Your task to perform on an android device: Go to eBay Image 0: 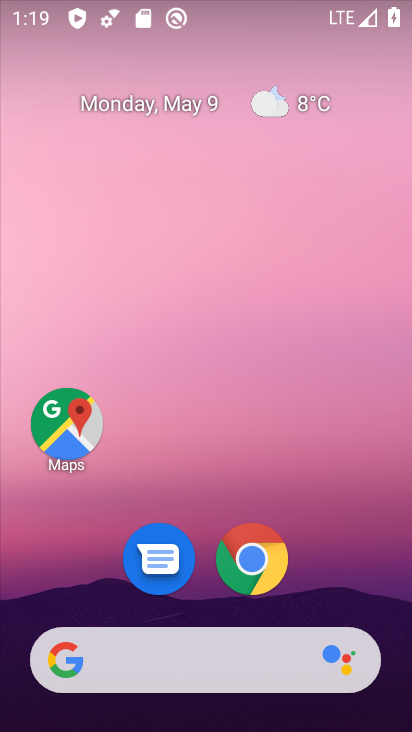
Step 0: click (236, 561)
Your task to perform on an android device: Go to eBay Image 1: 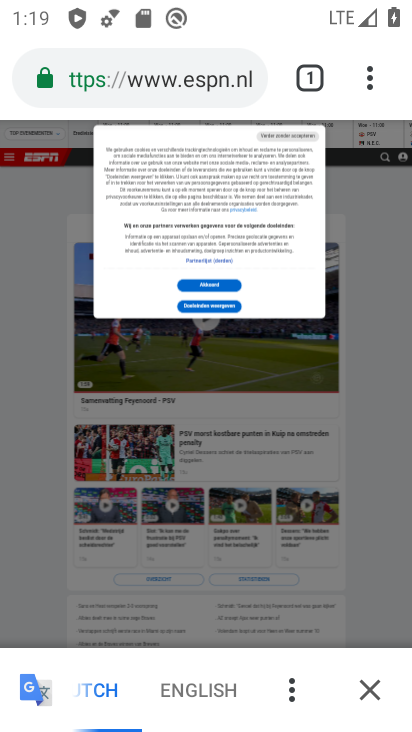
Step 1: click (371, 77)
Your task to perform on an android device: Go to eBay Image 2: 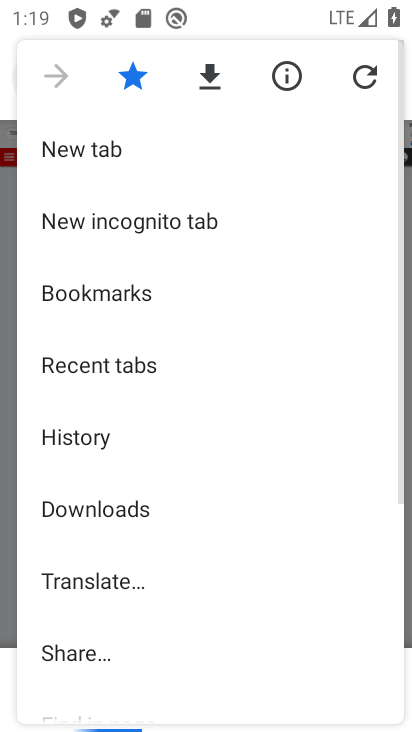
Step 2: click (107, 143)
Your task to perform on an android device: Go to eBay Image 3: 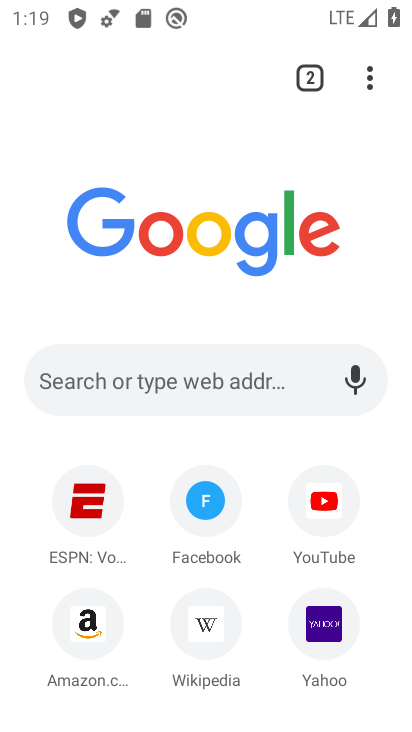
Step 3: drag from (391, 544) to (318, 212)
Your task to perform on an android device: Go to eBay Image 4: 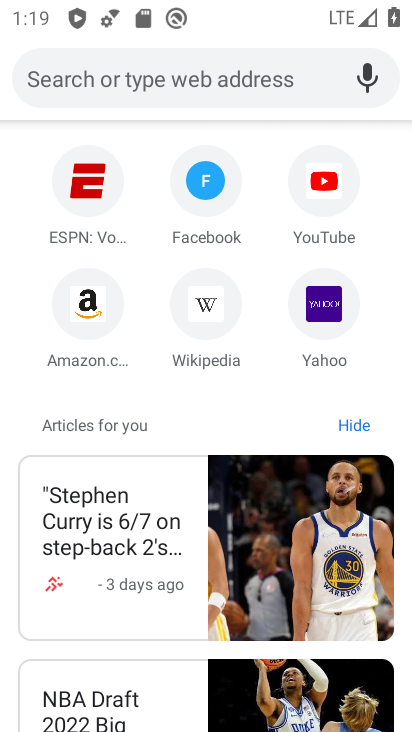
Step 4: click (191, 83)
Your task to perform on an android device: Go to eBay Image 5: 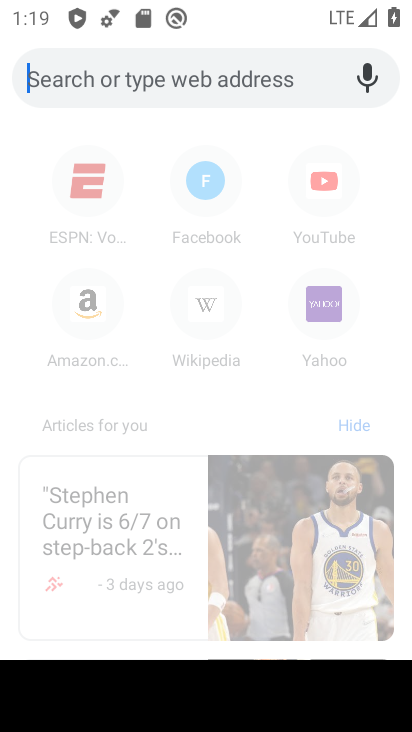
Step 5: type "ebay"
Your task to perform on an android device: Go to eBay Image 6: 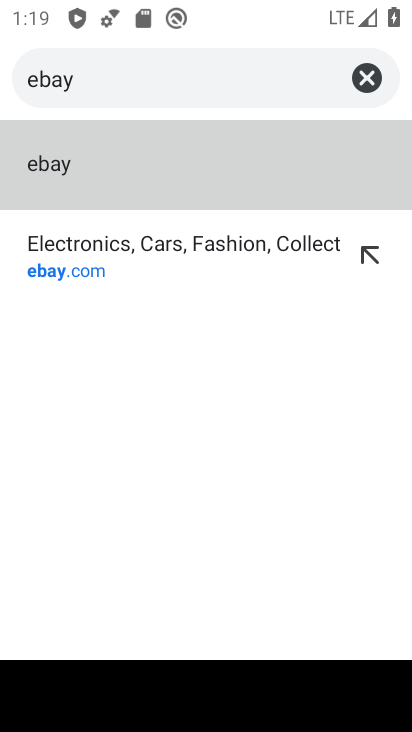
Step 6: click (47, 167)
Your task to perform on an android device: Go to eBay Image 7: 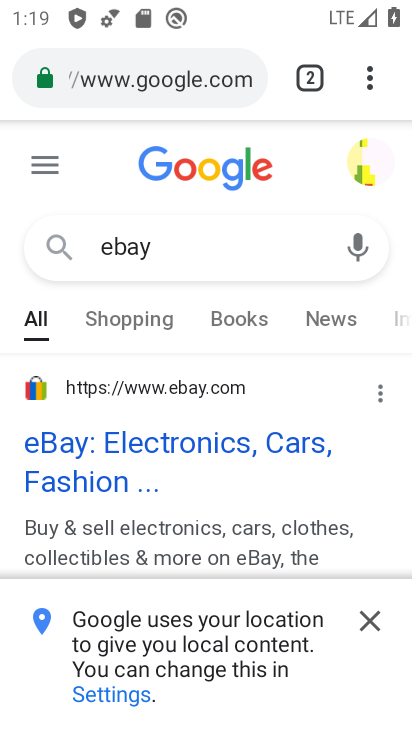
Step 7: task complete